Your task to perform on an android device: remove spam from my inbox in the gmail app Image 0: 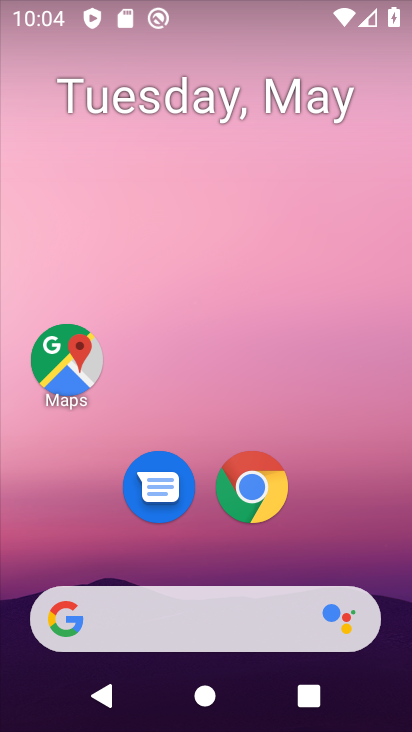
Step 0: drag from (347, 543) to (254, 203)
Your task to perform on an android device: remove spam from my inbox in the gmail app Image 1: 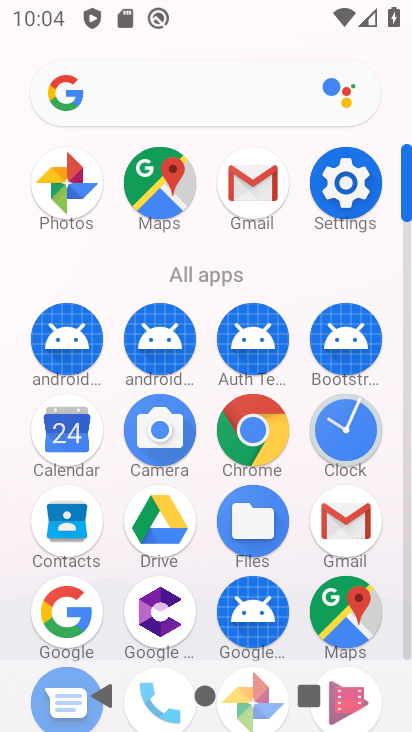
Step 1: click (255, 185)
Your task to perform on an android device: remove spam from my inbox in the gmail app Image 2: 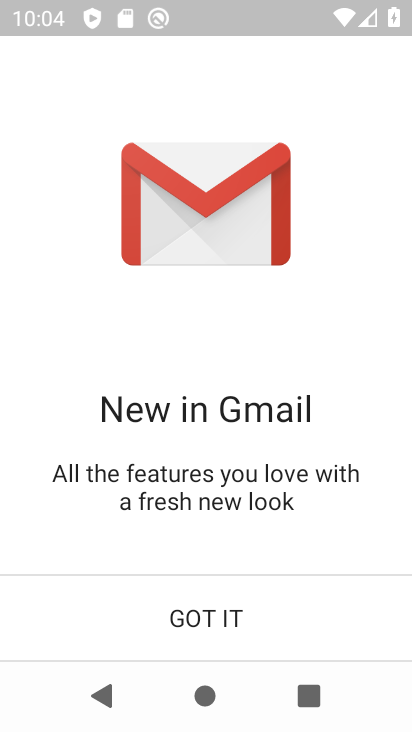
Step 2: click (222, 619)
Your task to perform on an android device: remove spam from my inbox in the gmail app Image 3: 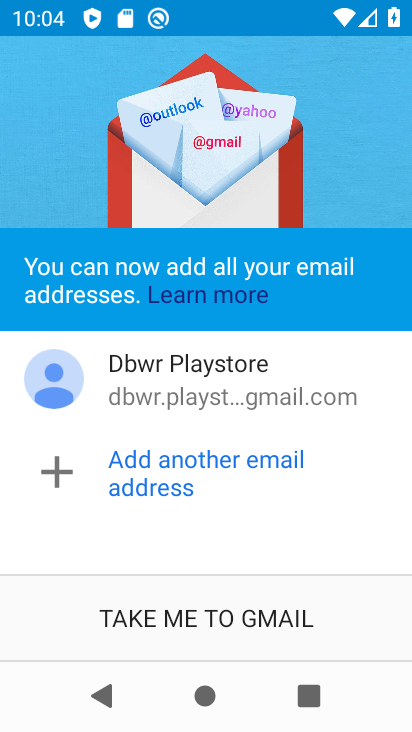
Step 3: click (216, 613)
Your task to perform on an android device: remove spam from my inbox in the gmail app Image 4: 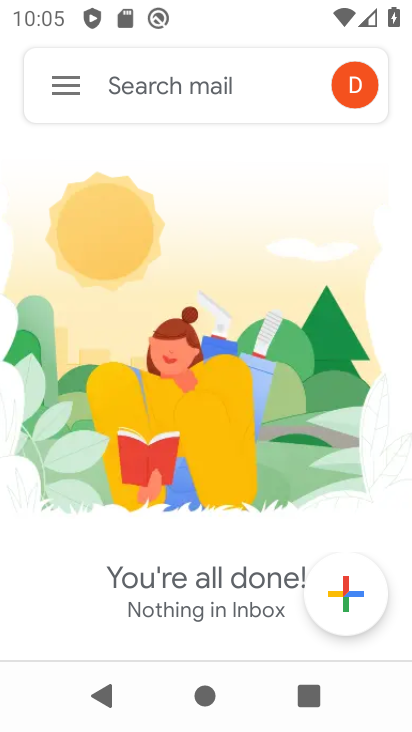
Step 4: click (62, 88)
Your task to perform on an android device: remove spam from my inbox in the gmail app Image 5: 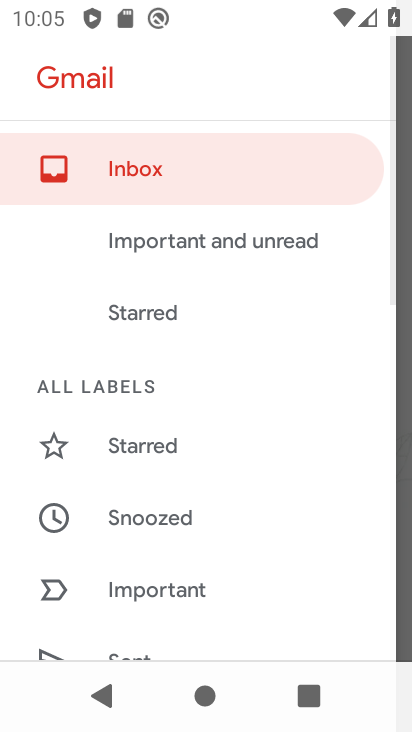
Step 5: drag from (192, 359) to (222, 282)
Your task to perform on an android device: remove spam from my inbox in the gmail app Image 6: 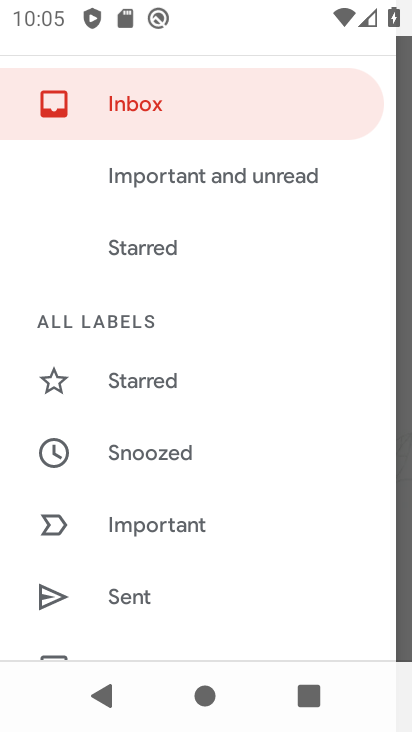
Step 6: drag from (187, 363) to (238, 288)
Your task to perform on an android device: remove spam from my inbox in the gmail app Image 7: 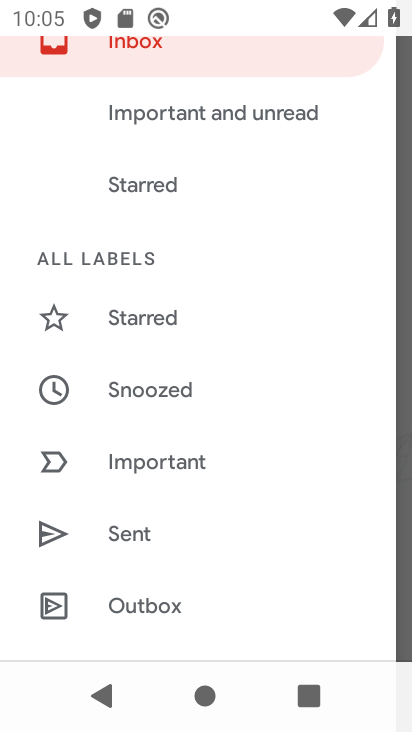
Step 7: drag from (214, 357) to (262, 277)
Your task to perform on an android device: remove spam from my inbox in the gmail app Image 8: 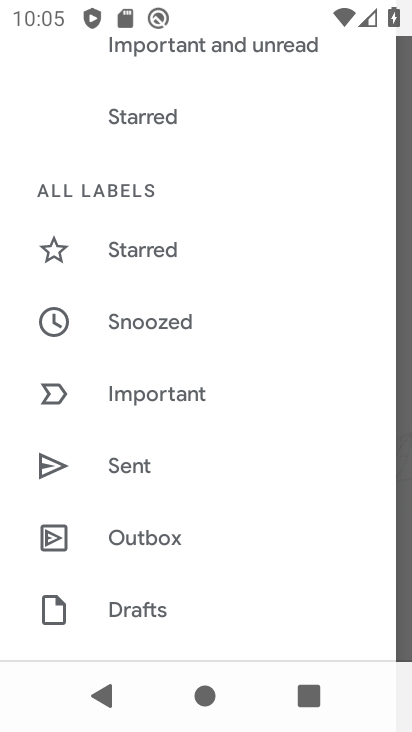
Step 8: drag from (175, 371) to (235, 298)
Your task to perform on an android device: remove spam from my inbox in the gmail app Image 9: 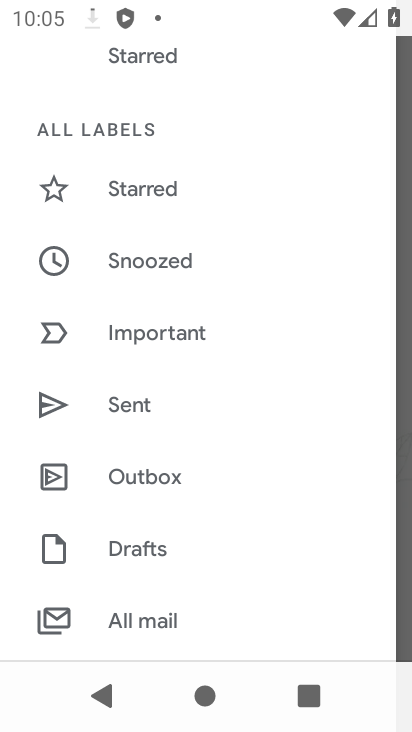
Step 9: drag from (188, 388) to (251, 307)
Your task to perform on an android device: remove spam from my inbox in the gmail app Image 10: 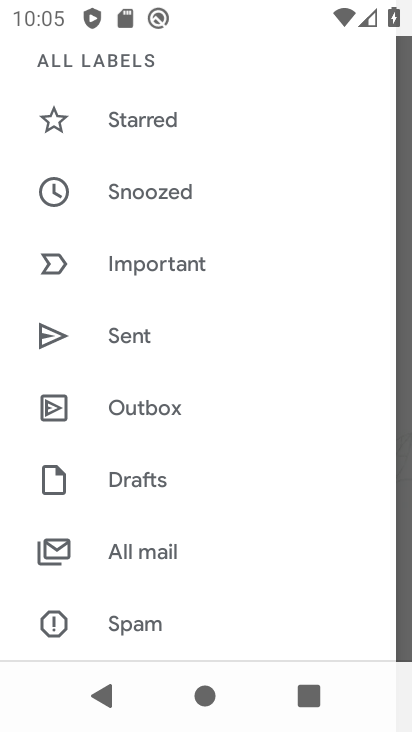
Step 10: drag from (194, 369) to (253, 292)
Your task to perform on an android device: remove spam from my inbox in the gmail app Image 11: 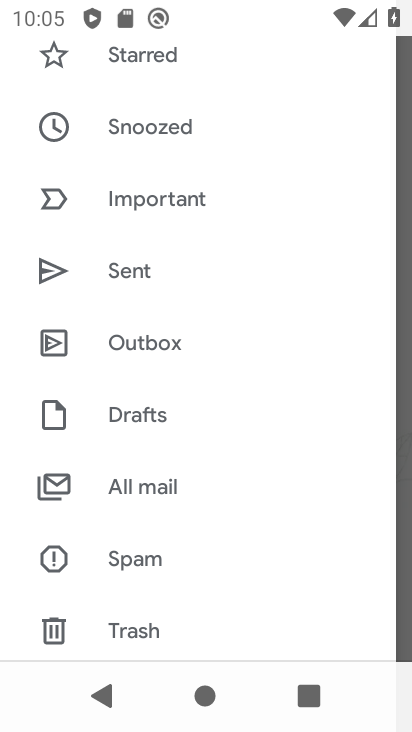
Step 11: drag from (187, 384) to (255, 304)
Your task to perform on an android device: remove spam from my inbox in the gmail app Image 12: 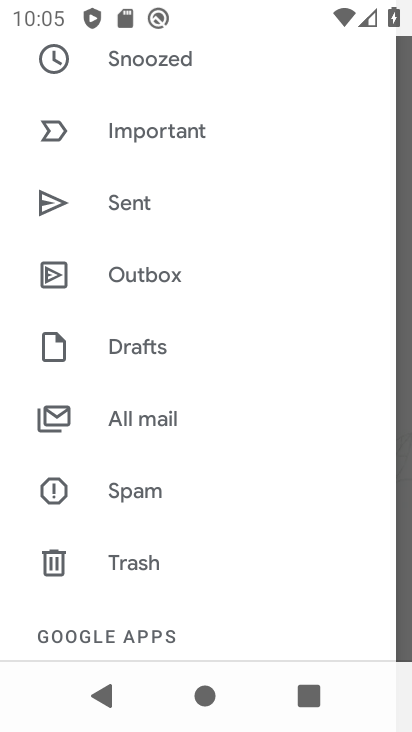
Step 12: drag from (214, 392) to (251, 336)
Your task to perform on an android device: remove spam from my inbox in the gmail app Image 13: 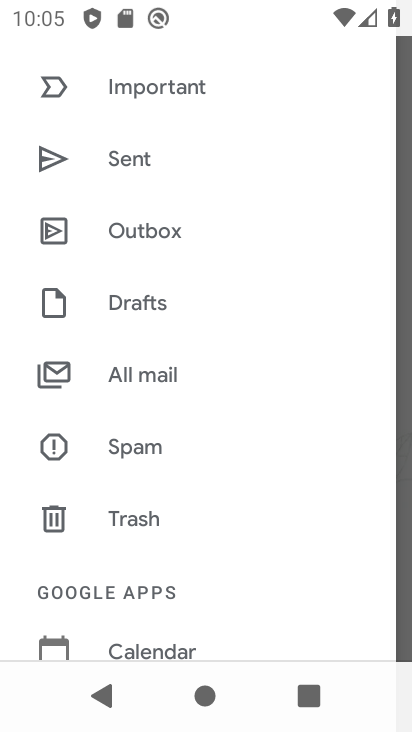
Step 13: click (146, 454)
Your task to perform on an android device: remove spam from my inbox in the gmail app Image 14: 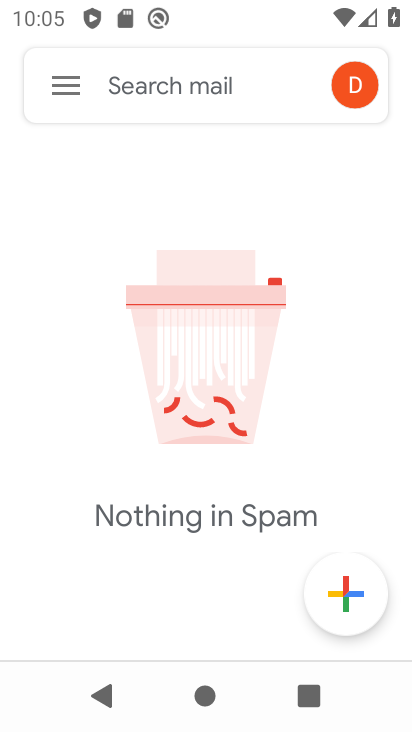
Step 14: task complete